Your task to perform on an android device: Play the last video I watched on Youtube Image 0: 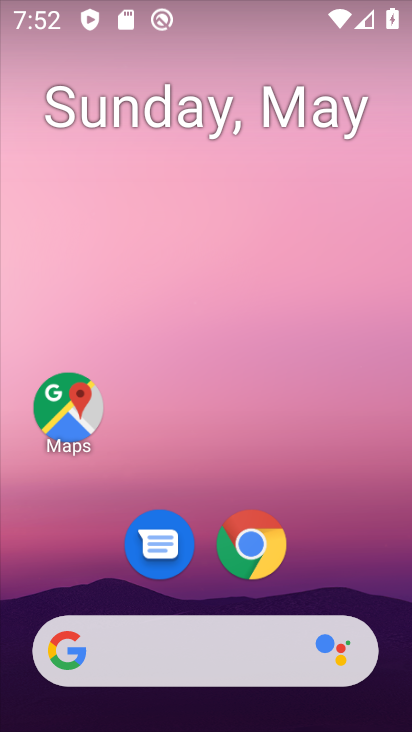
Step 0: drag from (349, 557) to (272, 45)
Your task to perform on an android device: Play the last video I watched on Youtube Image 1: 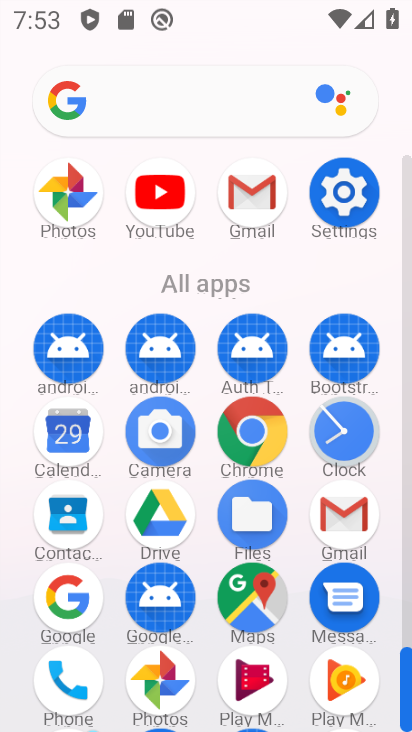
Step 1: drag from (12, 544) to (30, 204)
Your task to perform on an android device: Play the last video I watched on Youtube Image 2: 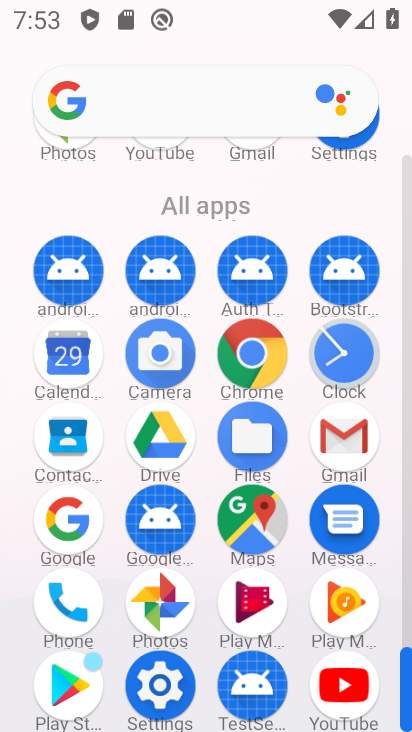
Step 2: click (337, 678)
Your task to perform on an android device: Play the last video I watched on Youtube Image 3: 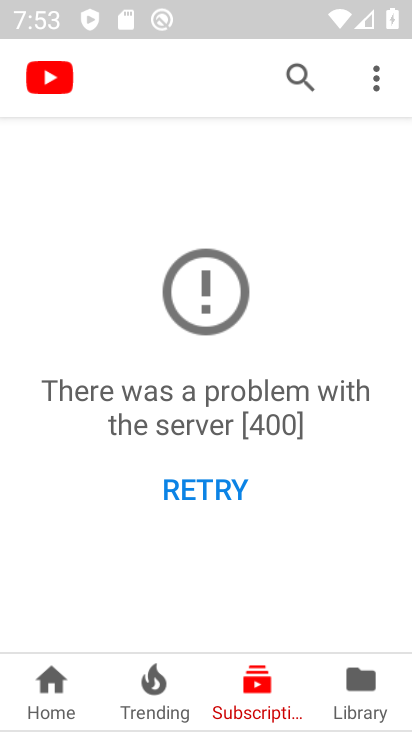
Step 3: click (360, 690)
Your task to perform on an android device: Play the last video I watched on Youtube Image 4: 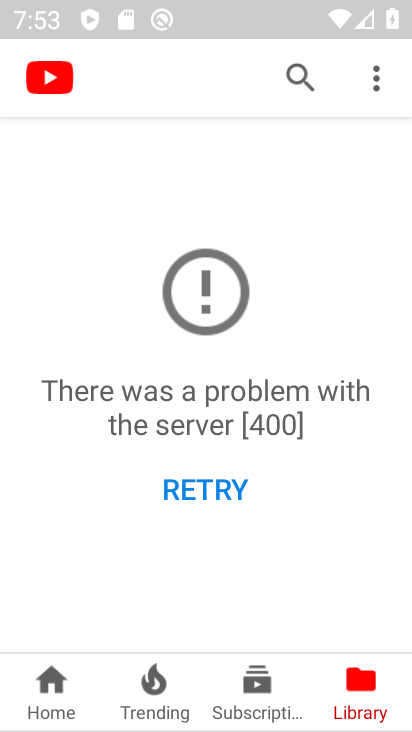
Step 4: click (187, 489)
Your task to perform on an android device: Play the last video I watched on Youtube Image 5: 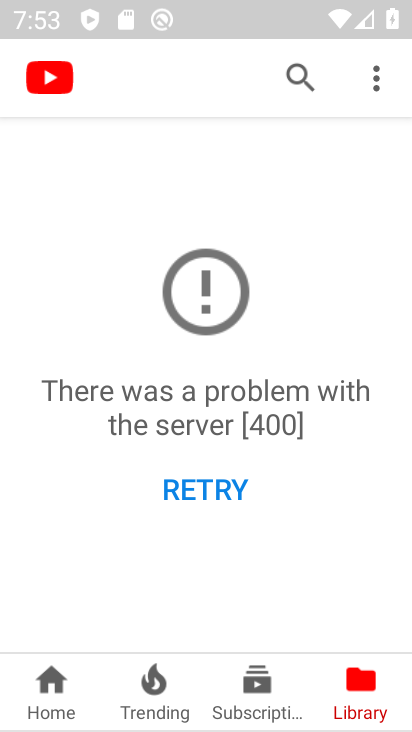
Step 5: click (187, 489)
Your task to perform on an android device: Play the last video I watched on Youtube Image 6: 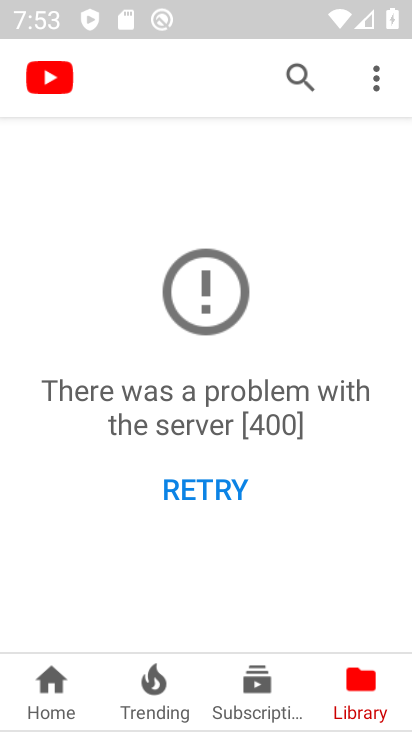
Step 6: task complete